Your task to perform on an android device: turn off sleep mode Image 0: 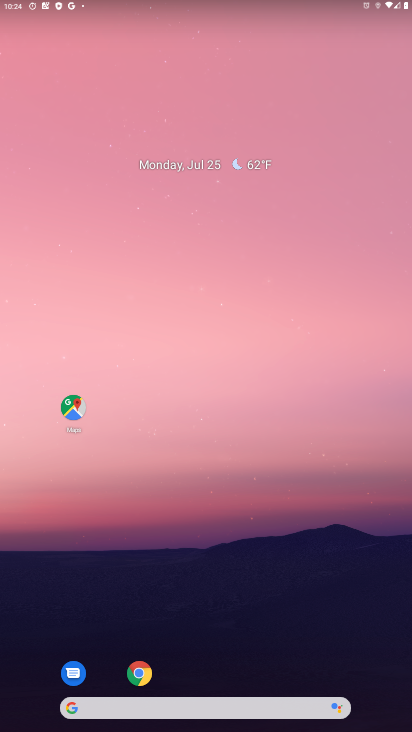
Step 0: drag from (188, 682) to (217, 176)
Your task to perform on an android device: turn off sleep mode Image 1: 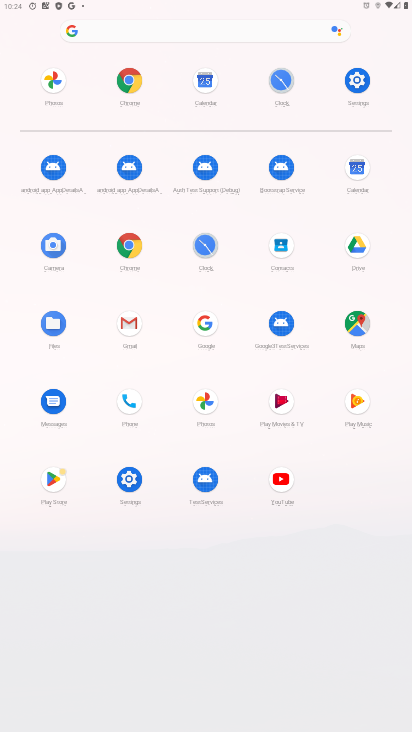
Step 1: click (358, 88)
Your task to perform on an android device: turn off sleep mode Image 2: 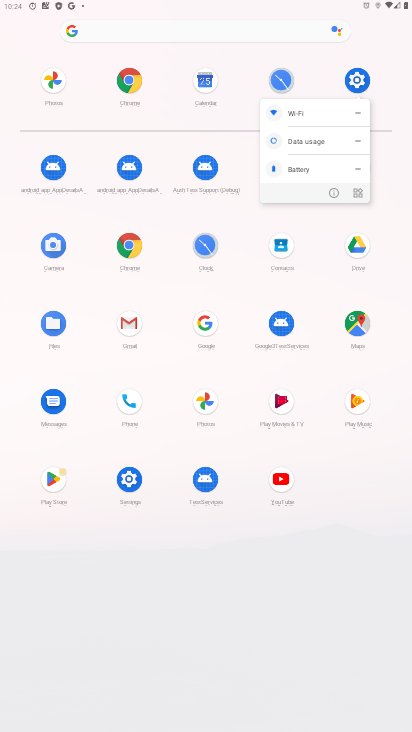
Step 2: click (336, 191)
Your task to perform on an android device: turn off sleep mode Image 3: 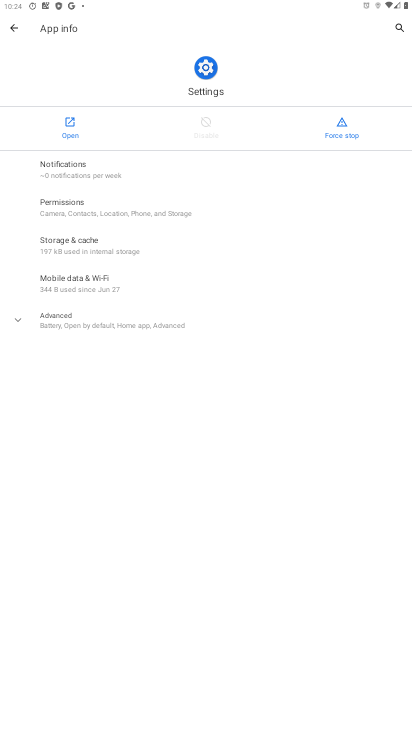
Step 3: click (66, 118)
Your task to perform on an android device: turn off sleep mode Image 4: 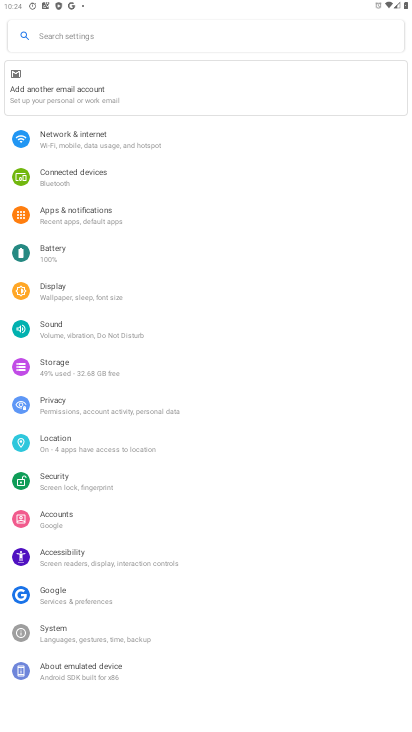
Step 4: click (92, 300)
Your task to perform on an android device: turn off sleep mode Image 5: 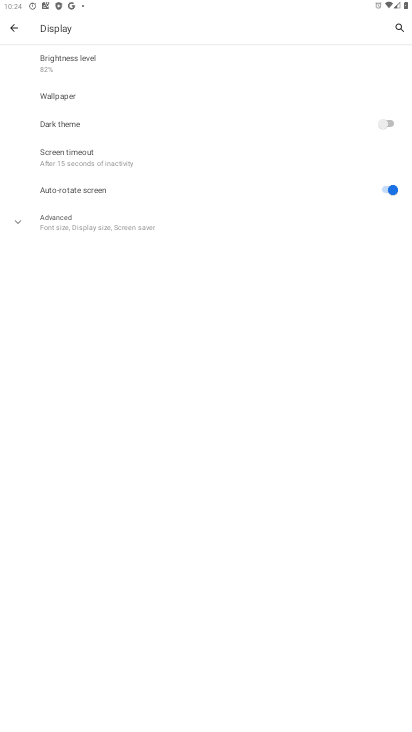
Step 5: click (95, 158)
Your task to perform on an android device: turn off sleep mode Image 6: 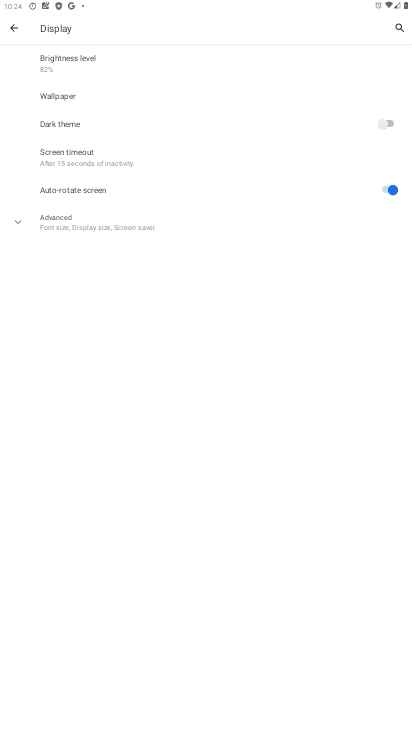
Step 6: click (95, 158)
Your task to perform on an android device: turn off sleep mode Image 7: 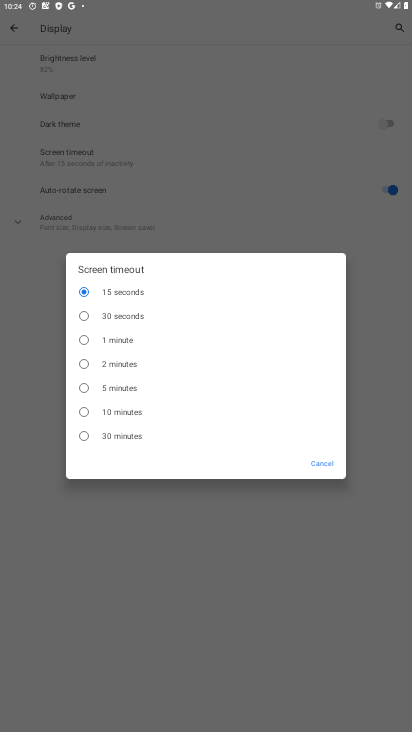
Step 7: task complete